Your task to perform on an android device: change alarm snooze length Image 0: 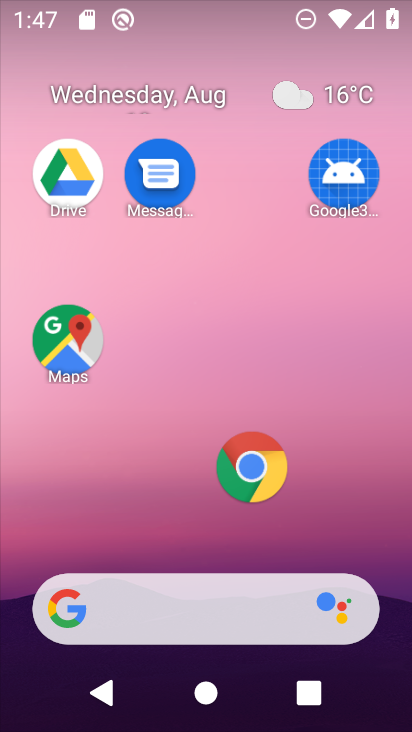
Step 0: drag from (202, 522) to (278, 26)
Your task to perform on an android device: change alarm snooze length Image 1: 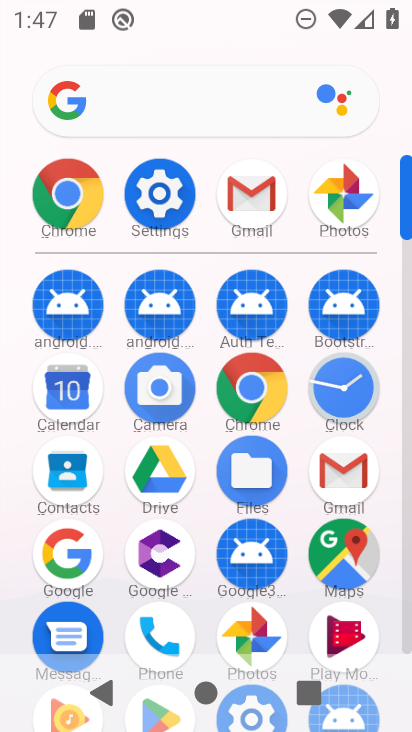
Step 1: click (169, 193)
Your task to perform on an android device: change alarm snooze length Image 2: 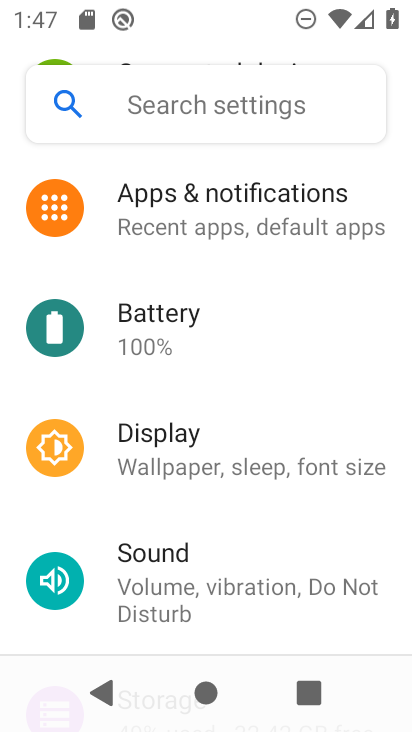
Step 2: press back button
Your task to perform on an android device: change alarm snooze length Image 3: 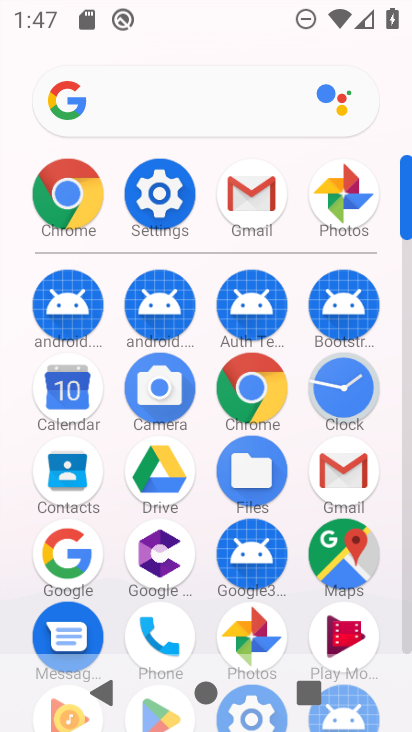
Step 3: click (330, 388)
Your task to perform on an android device: change alarm snooze length Image 4: 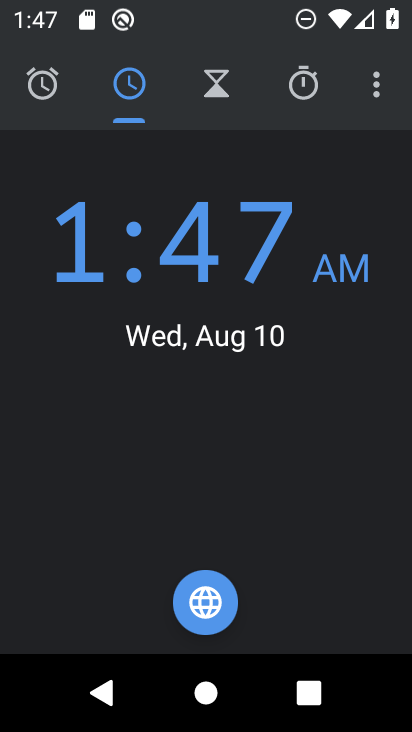
Step 4: click (385, 80)
Your task to perform on an android device: change alarm snooze length Image 5: 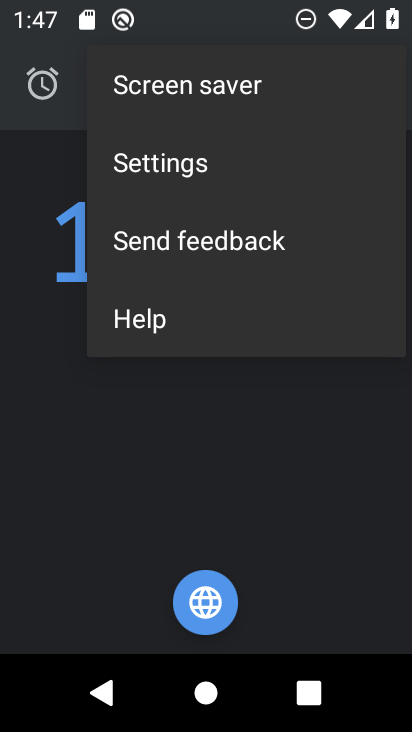
Step 5: click (201, 179)
Your task to perform on an android device: change alarm snooze length Image 6: 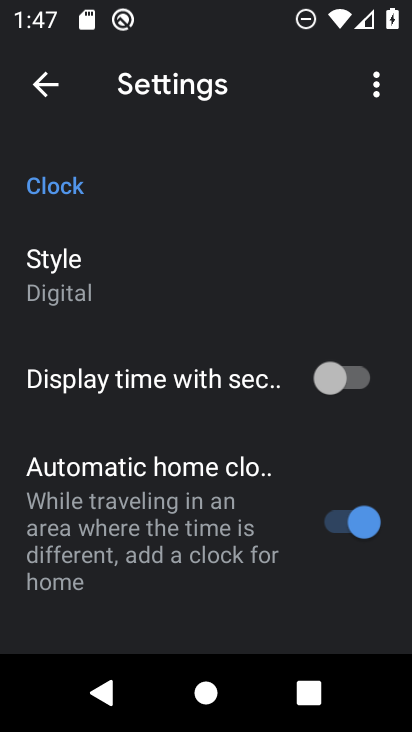
Step 6: drag from (165, 584) to (263, 137)
Your task to perform on an android device: change alarm snooze length Image 7: 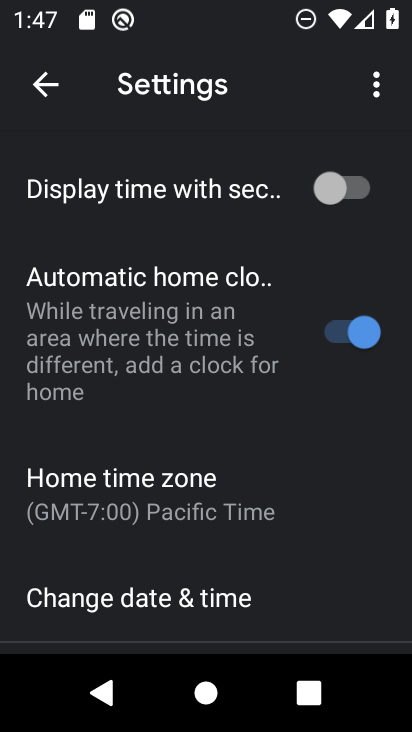
Step 7: drag from (160, 556) to (251, 136)
Your task to perform on an android device: change alarm snooze length Image 8: 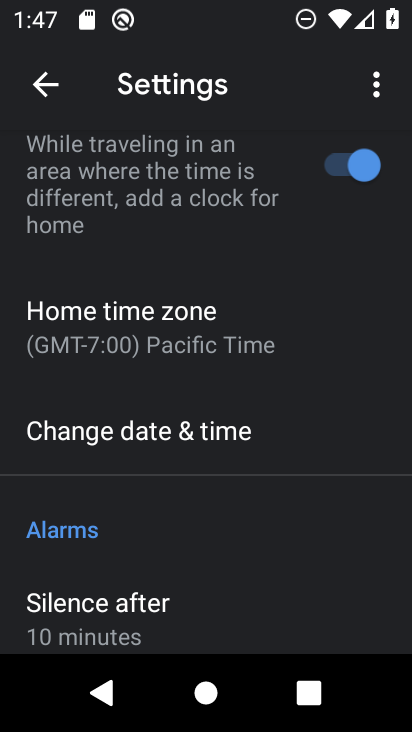
Step 8: drag from (125, 573) to (184, 93)
Your task to perform on an android device: change alarm snooze length Image 9: 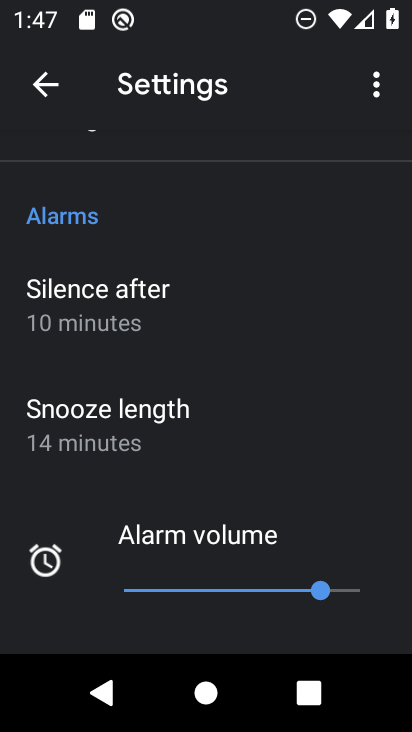
Step 9: click (227, 446)
Your task to perform on an android device: change alarm snooze length Image 10: 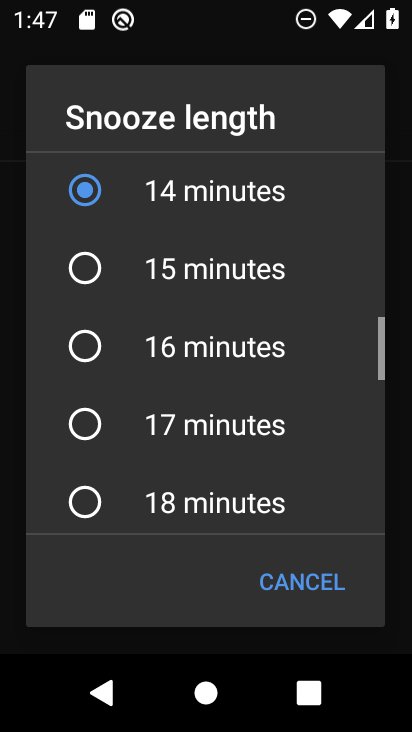
Step 10: click (227, 446)
Your task to perform on an android device: change alarm snooze length Image 11: 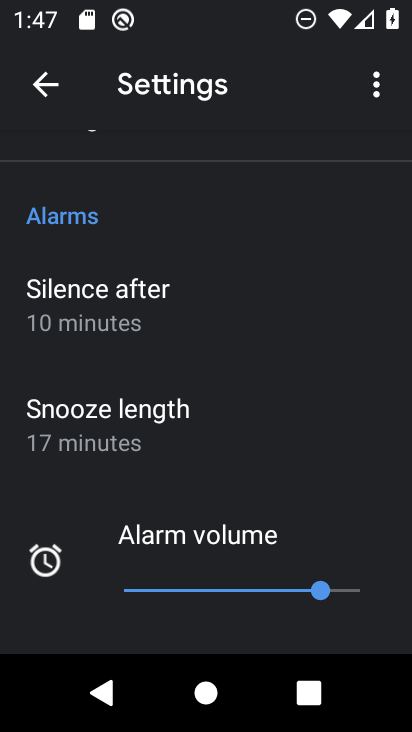
Step 11: task complete